Your task to perform on an android device: open chrome privacy settings Image 0: 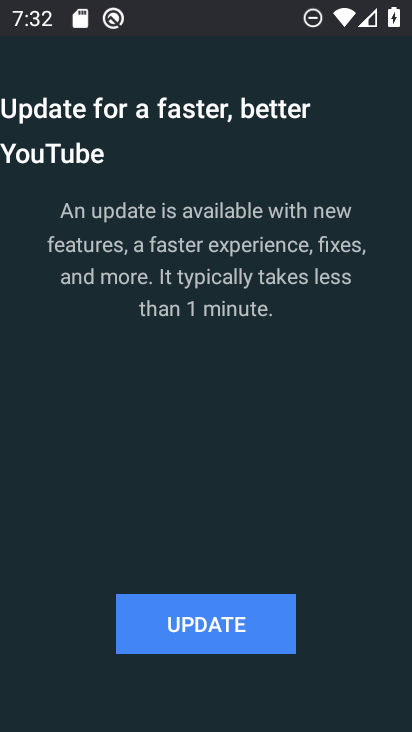
Step 0: press home button
Your task to perform on an android device: open chrome privacy settings Image 1: 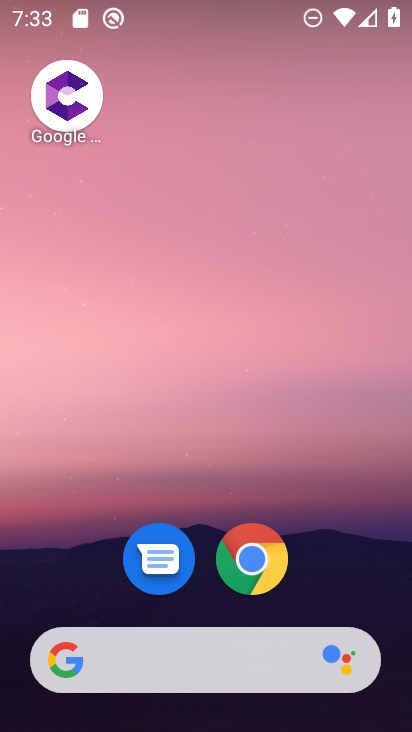
Step 1: press home button
Your task to perform on an android device: open chrome privacy settings Image 2: 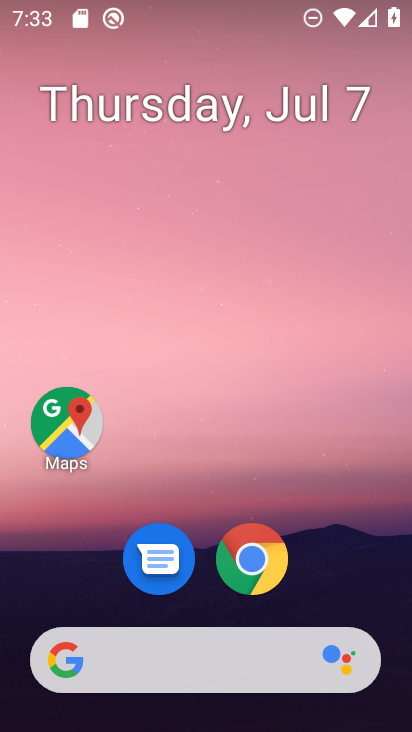
Step 2: click (260, 571)
Your task to perform on an android device: open chrome privacy settings Image 3: 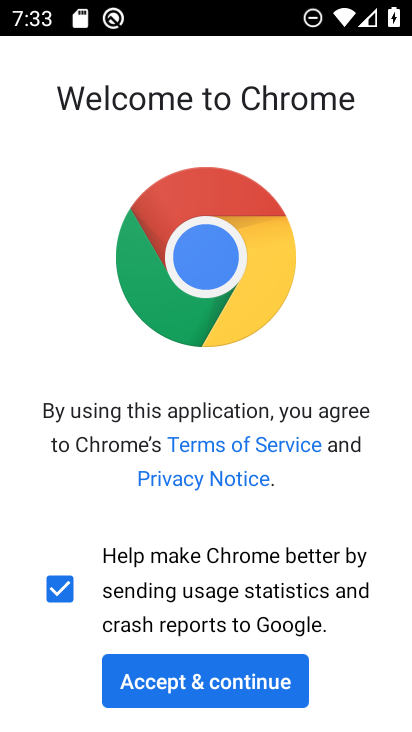
Step 3: click (242, 686)
Your task to perform on an android device: open chrome privacy settings Image 4: 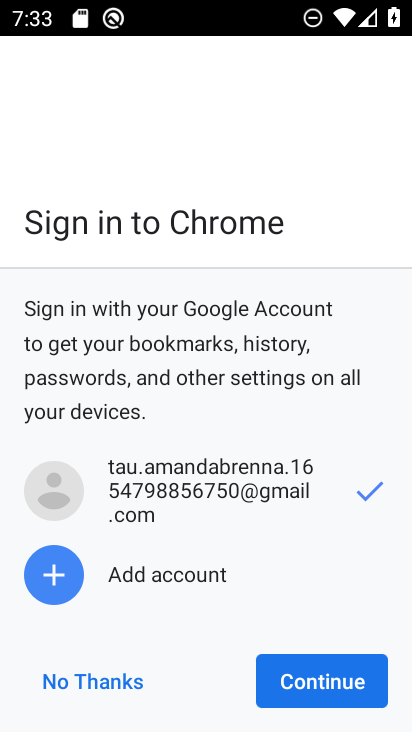
Step 4: click (361, 676)
Your task to perform on an android device: open chrome privacy settings Image 5: 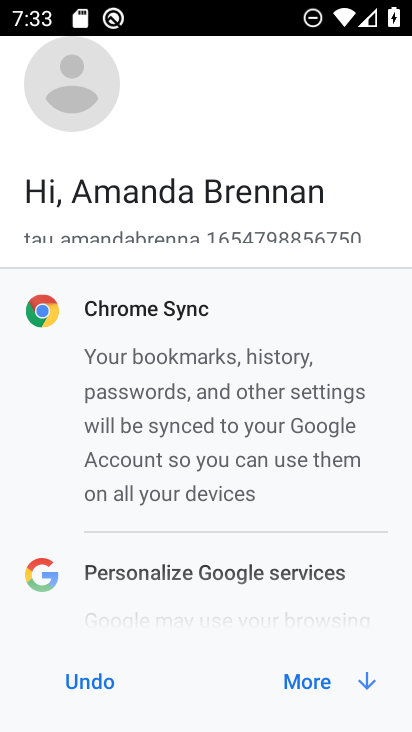
Step 5: click (309, 687)
Your task to perform on an android device: open chrome privacy settings Image 6: 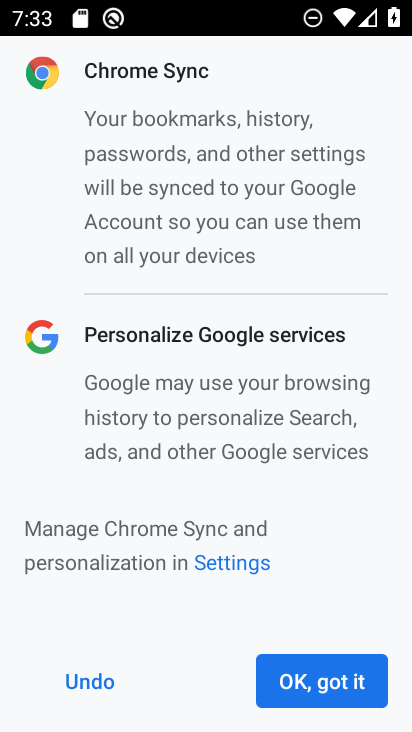
Step 6: click (295, 685)
Your task to perform on an android device: open chrome privacy settings Image 7: 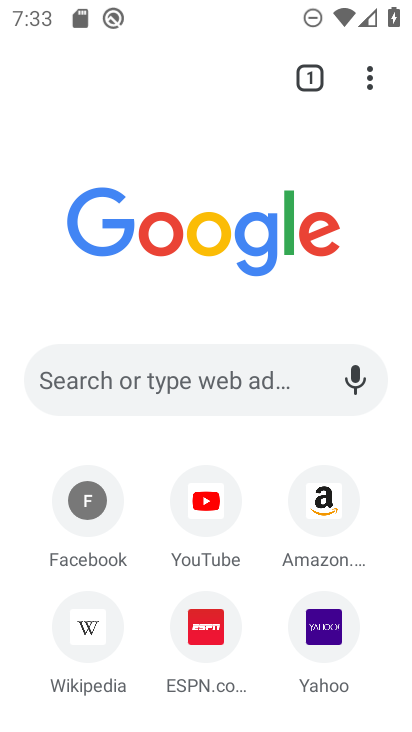
Step 7: drag from (370, 83) to (123, 648)
Your task to perform on an android device: open chrome privacy settings Image 8: 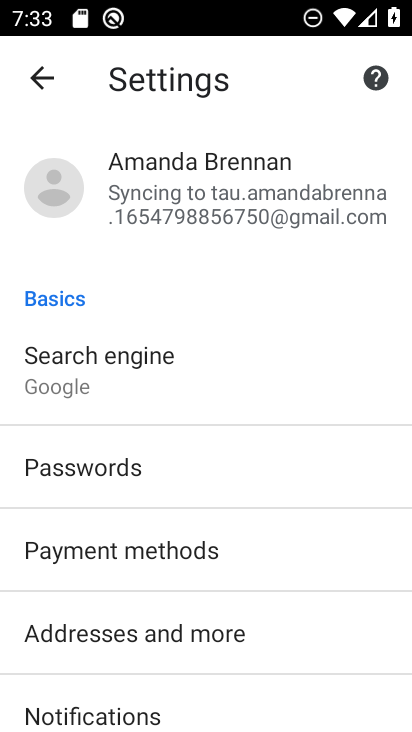
Step 8: drag from (149, 623) to (284, 230)
Your task to perform on an android device: open chrome privacy settings Image 9: 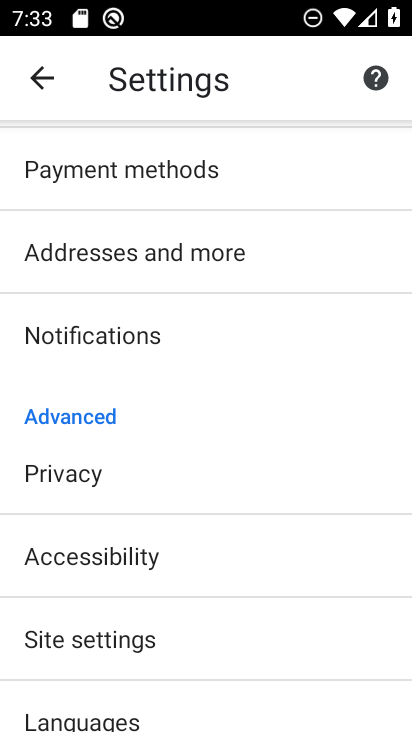
Step 9: click (86, 466)
Your task to perform on an android device: open chrome privacy settings Image 10: 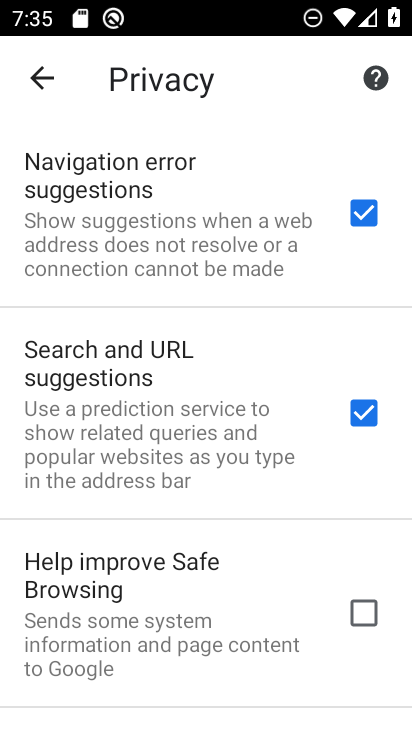
Step 10: task complete